Your task to perform on an android device: toggle wifi Image 0: 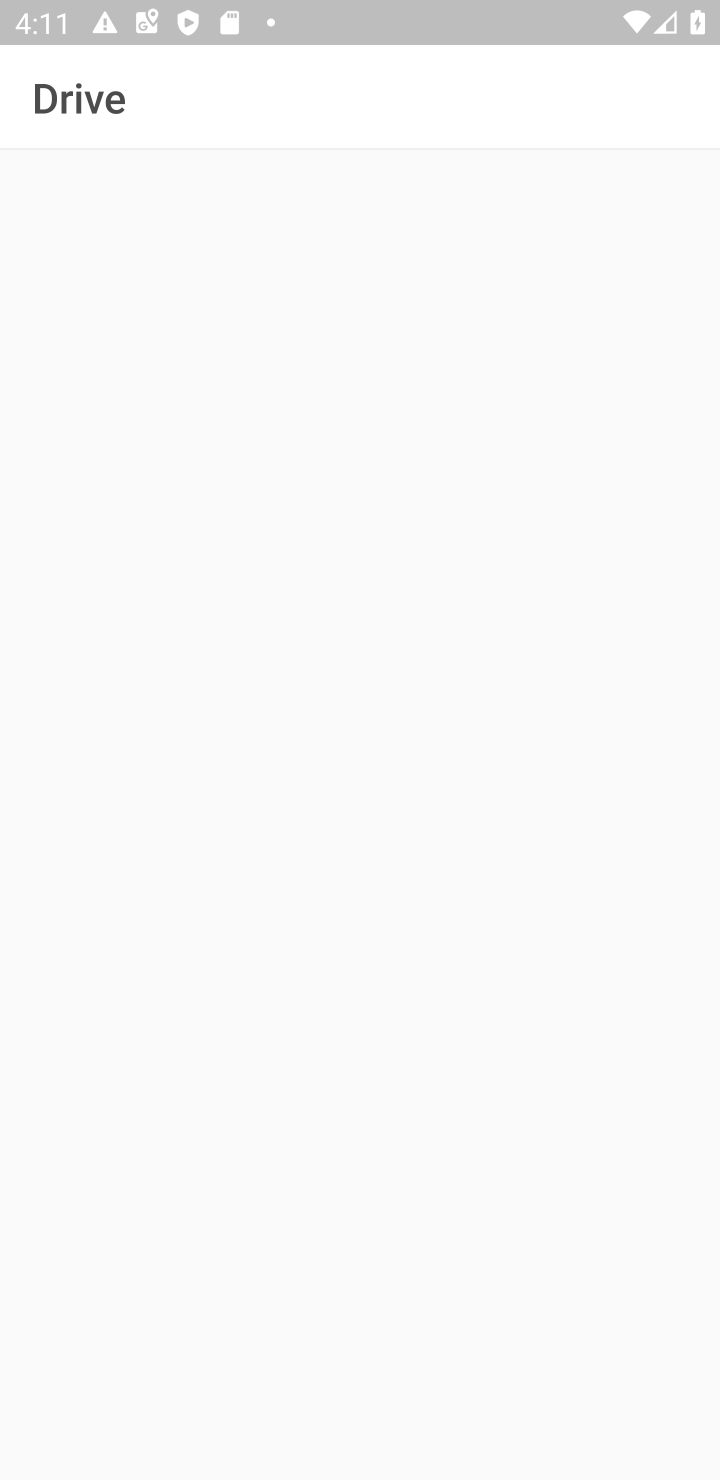
Step 0: drag from (552, 15) to (585, 1106)
Your task to perform on an android device: toggle wifi Image 1: 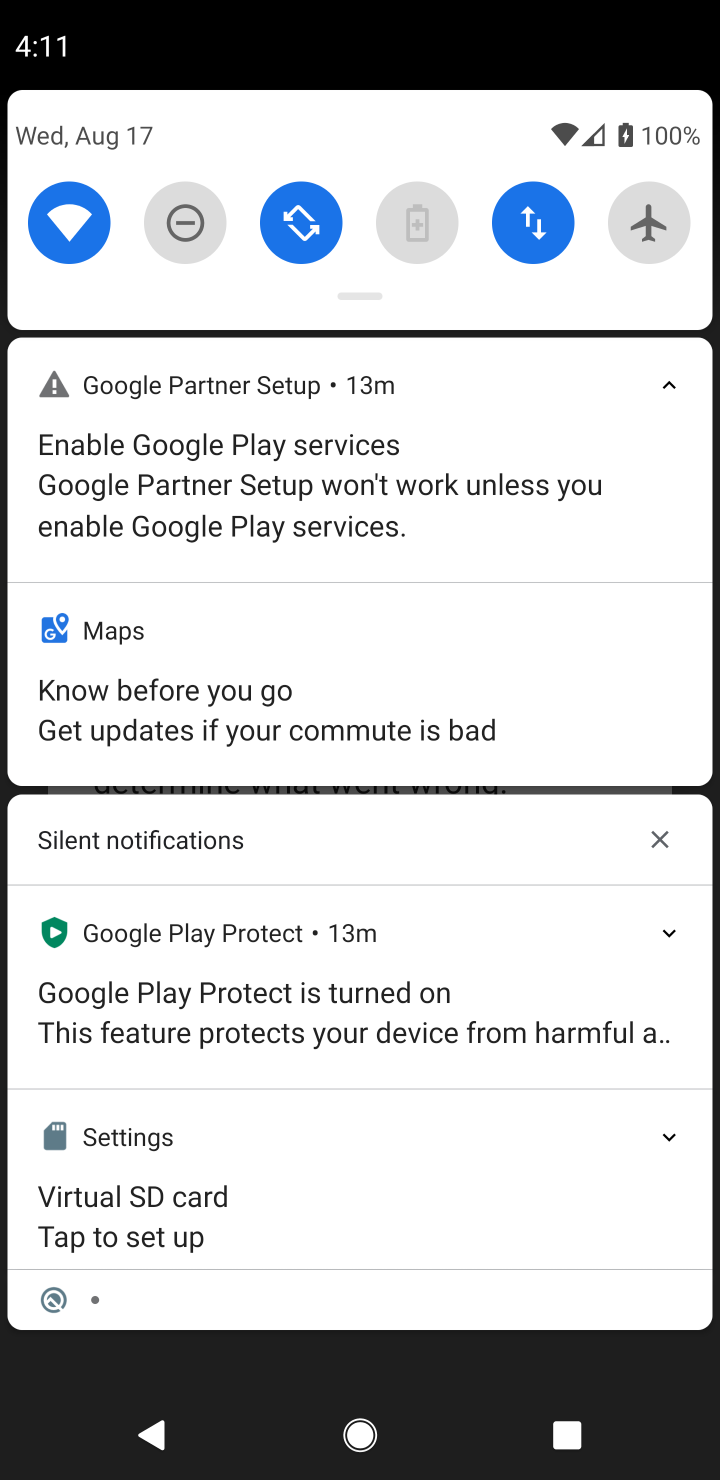
Step 1: click (74, 252)
Your task to perform on an android device: toggle wifi Image 2: 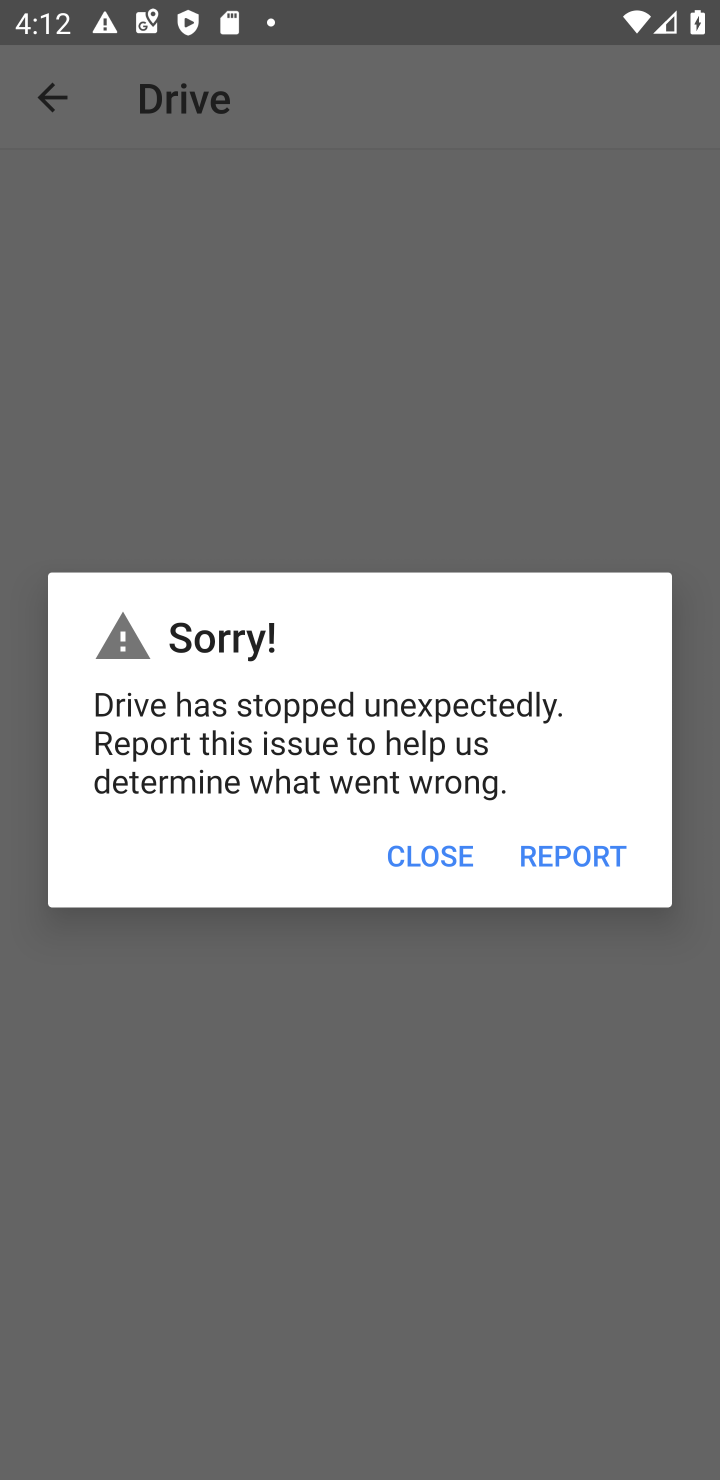
Step 2: task complete